Your task to perform on an android device: Open Chrome and go to the settings page Image 0: 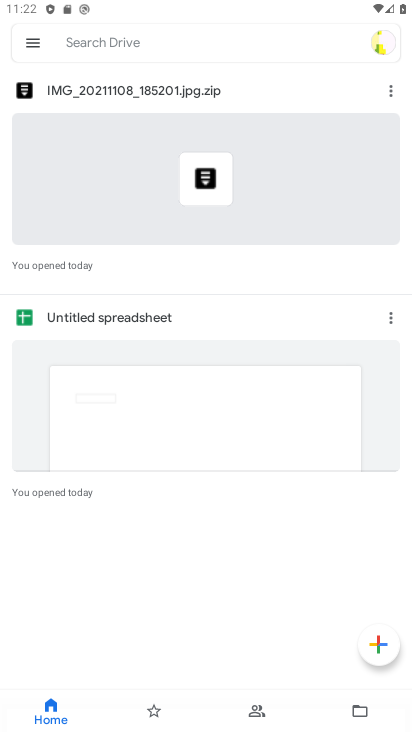
Step 0: press home button
Your task to perform on an android device: Open Chrome and go to the settings page Image 1: 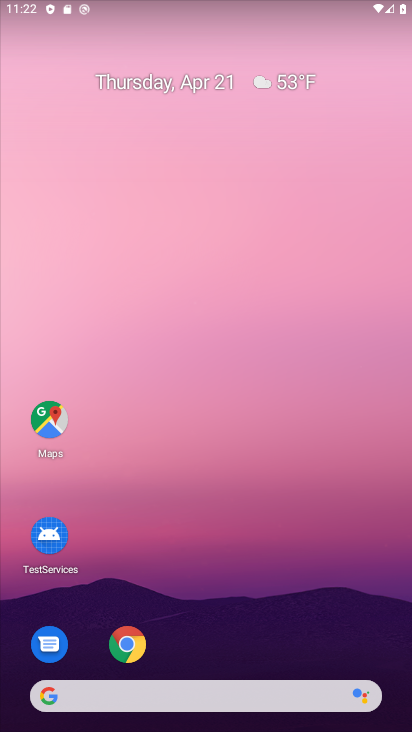
Step 1: drag from (253, 504) to (255, 195)
Your task to perform on an android device: Open Chrome and go to the settings page Image 2: 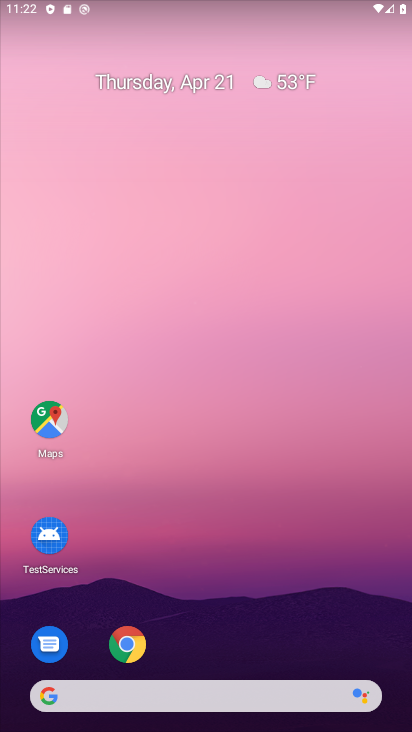
Step 2: drag from (196, 621) to (237, 129)
Your task to perform on an android device: Open Chrome and go to the settings page Image 3: 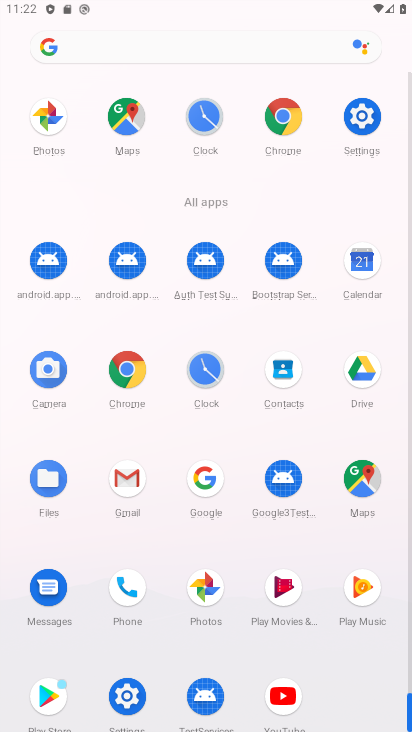
Step 3: click (123, 379)
Your task to perform on an android device: Open Chrome and go to the settings page Image 4: 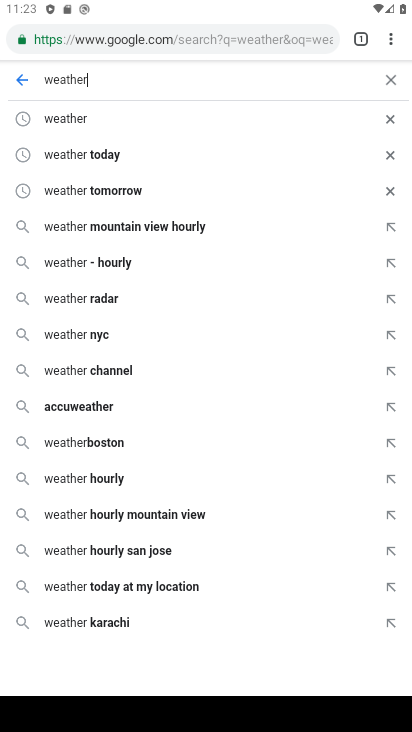
Step 4: click (382, 39)
Your task to perform on an android device: Open Chrome and go to the settings page Image 5: 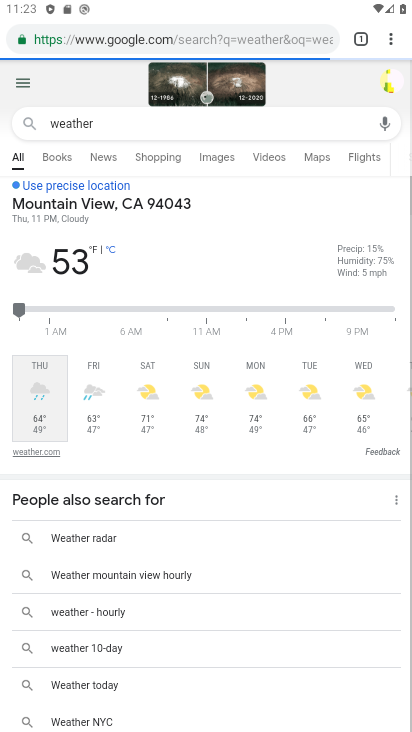
Step 5: task complete